Your task to perform on an android device: Is it going to rain this weekend? Image 0: 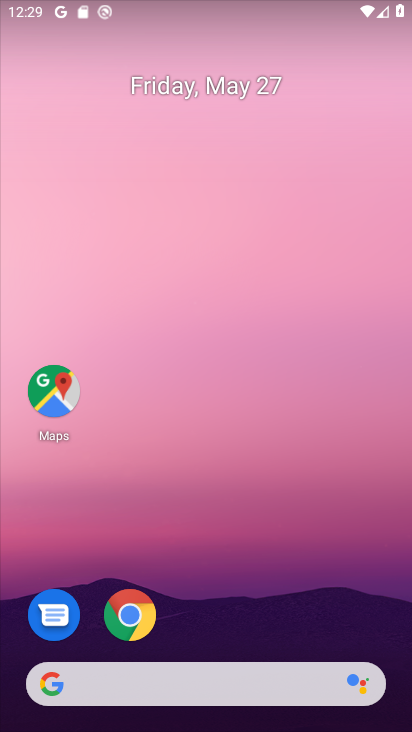
Step 0: drag from (6, 318) to (348, 286)
Your task to perform on an android device: Is it going to rain this weekend? Image 1: 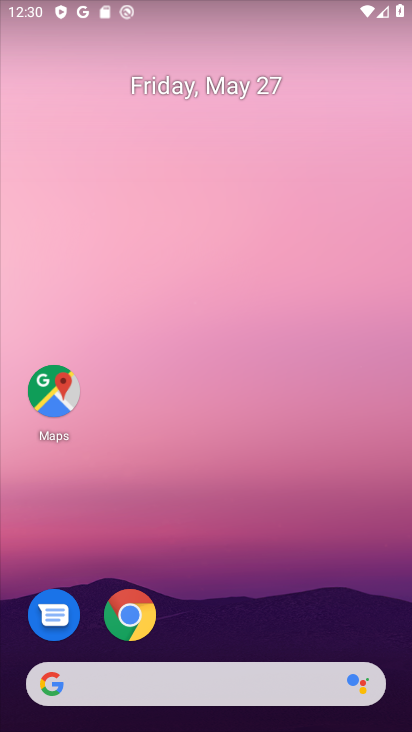
Step 1: drag from (0, 320) to (401, 260)
Your task to perform on an android device: Is it going to rain this weekend? Image 2: 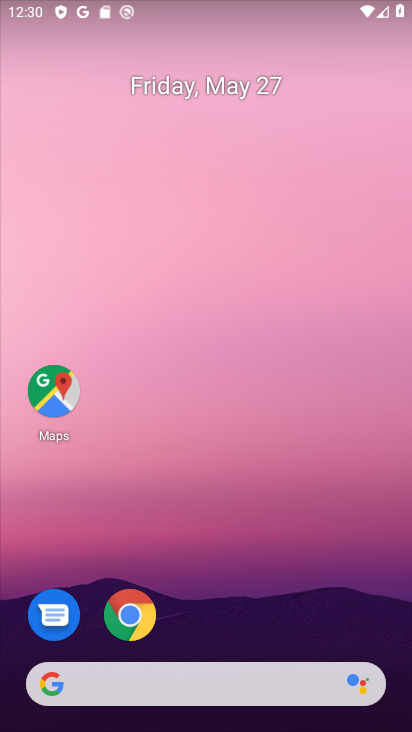
Step 2: drag from (0, 279) to (398, 160)
Your task to perform on an android device: Is it going to rain this weekend? Image 3: 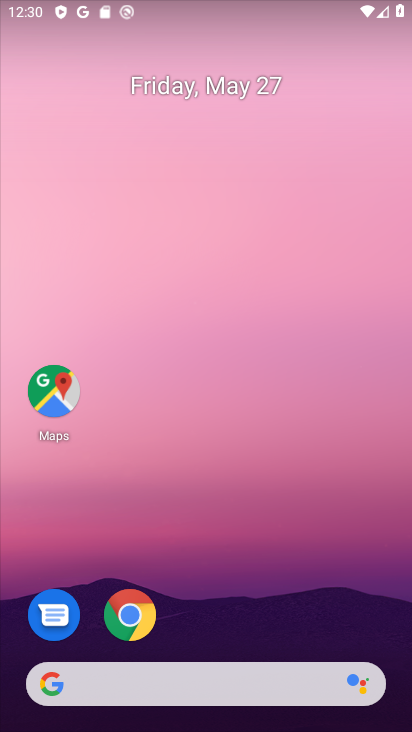
Step 3: drag from (0, 486) to (411, 429)
Your task to perform on an android device: Is it going to rain this weekend? Image 4: 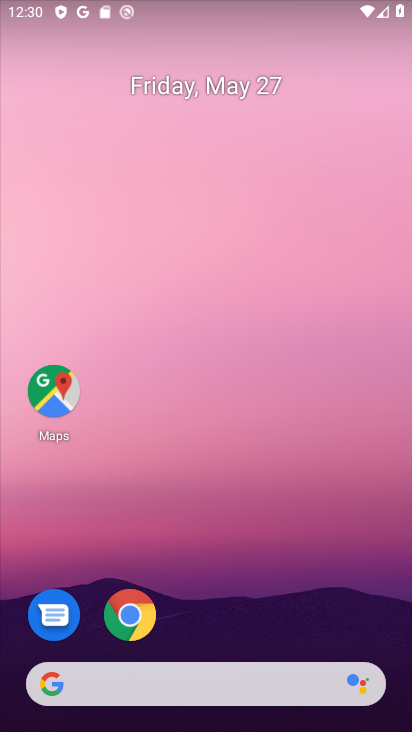
Step 4: drag from (92, 464) to (409, 436)
Your task to perform on an android device: Is it going to rain this weekend? Image 5: 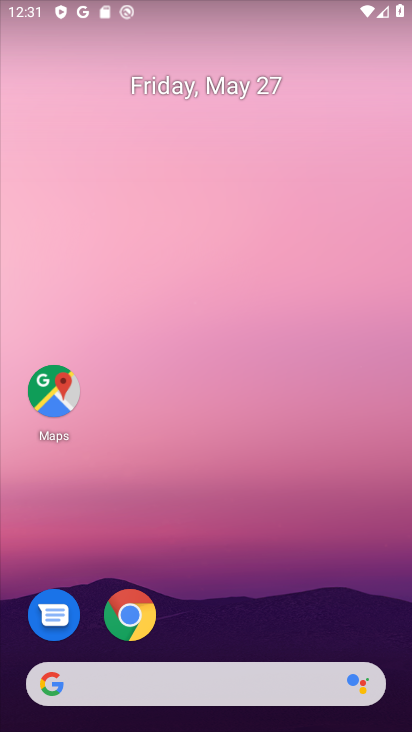
Step 5: click (161, 696)
Your task to perform on an android device: Is it going to rain this weekend? Image 6: 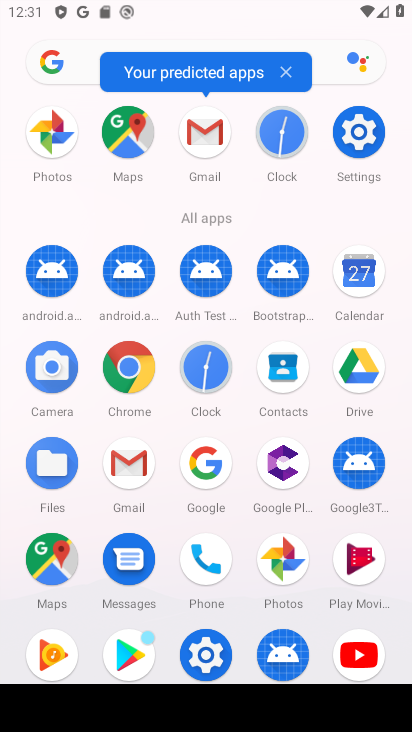
Step 6: press back button
Your task to perform on an android device: Is it going to rain this weekend? Image 7: 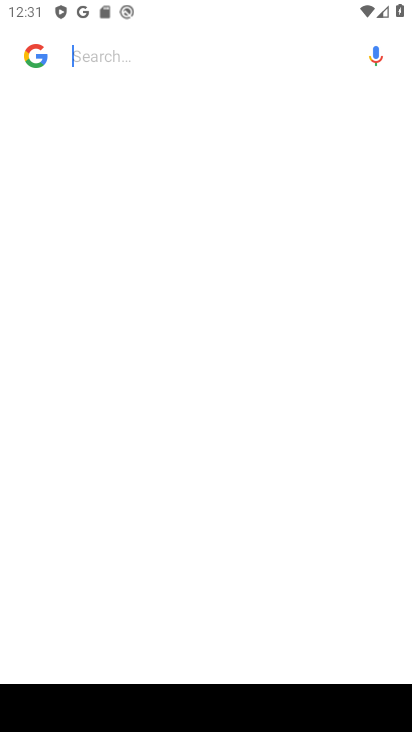
Step 7: press back button
Your task to perform on an android device: Is it going to rain this weekend? Image 8: 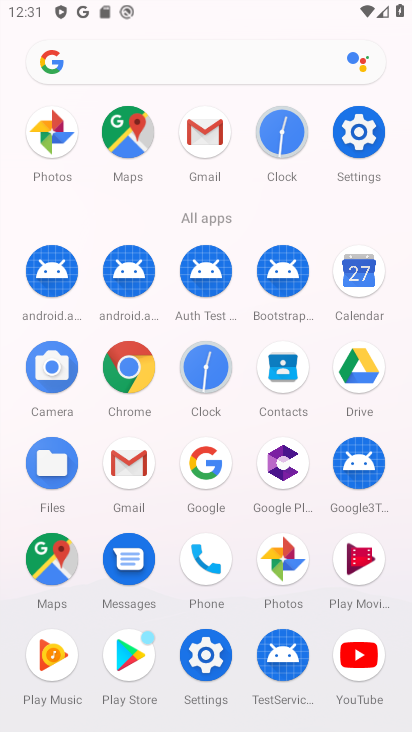
Step 8: click (213, 451)
Your task to perform on an android device: Is it going to rain this weekend? Image 9: 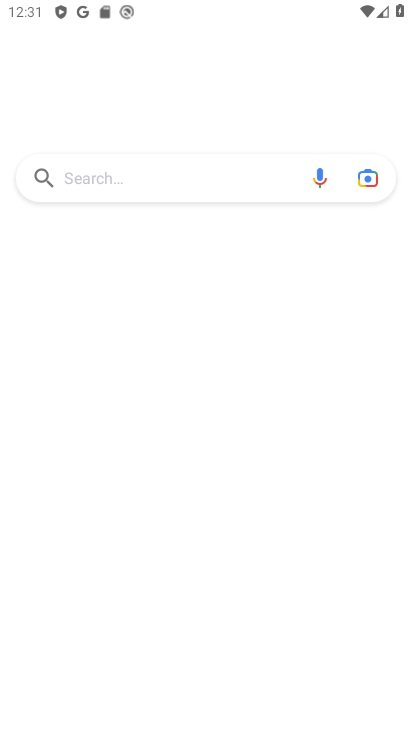
Step 9: click (206, 477)
Your task to perform on an android device: Is it going to rain this weekend? Image 10: 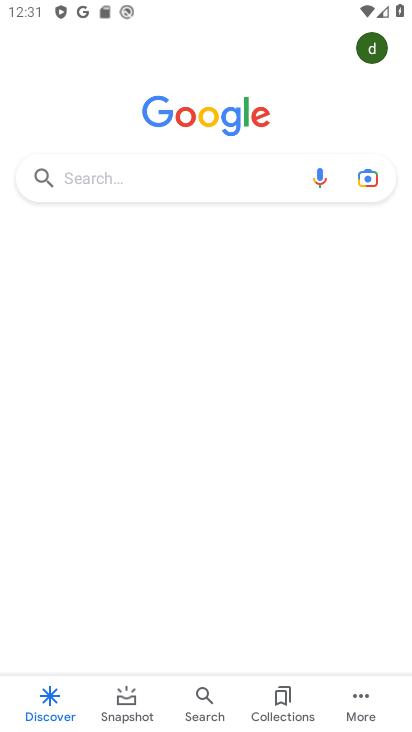
Step 10: click (165, 191)
Your task to perform on an android device: Is it going to rain this weekend? Image 11: 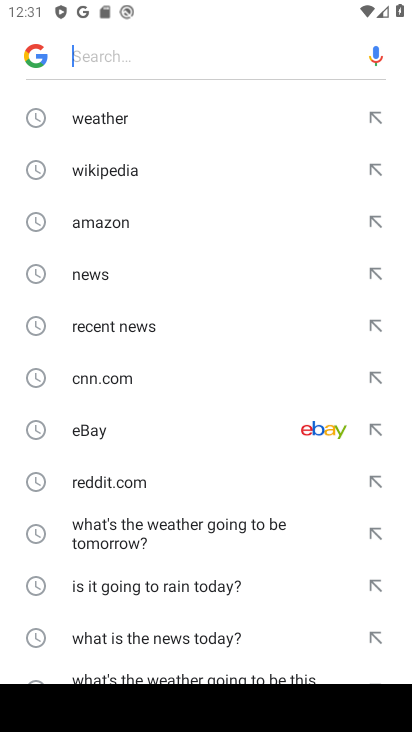
Step 11: click (197, 101)
Your task to perform on an android device: Is it going to rain this weekend? Image 12: 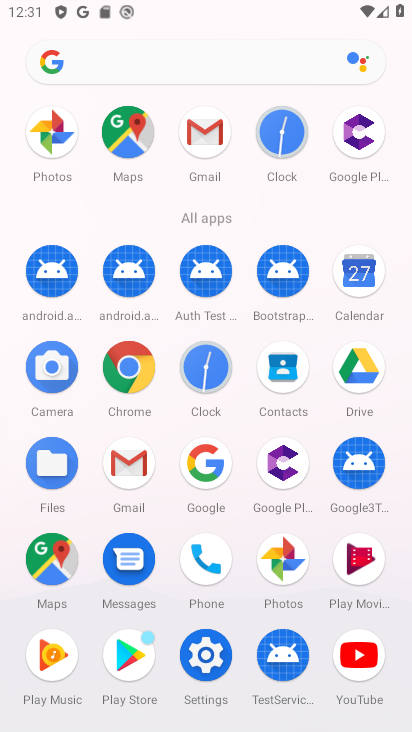
Step 12: click (209, 483)
Your task to perform on an android device: Is it going to rain this weekend? Image 13: 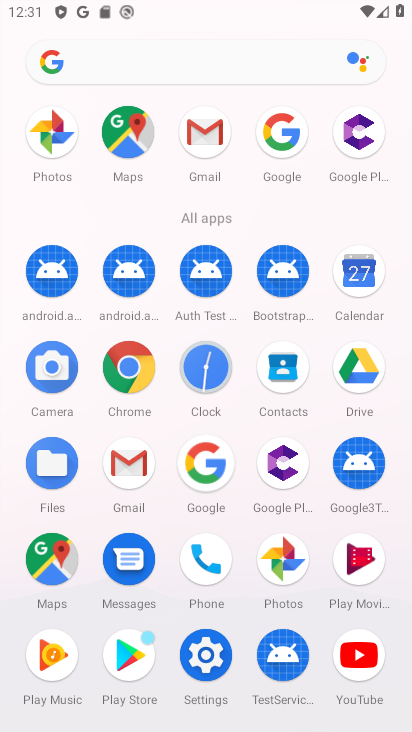
Step 13: click (213, 479)
Your task to perform on an android device: Is it going to rain this weekend? Image 14: 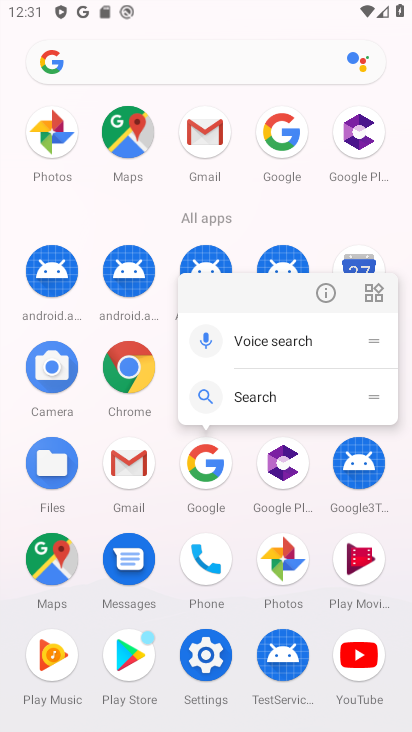
Step 14: click (207, 458)
Your task to perform on an android device: Is it going to rain this weekend? Image 15: 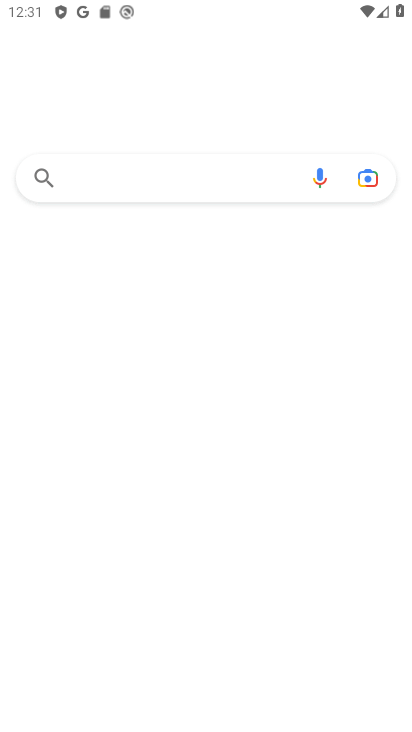
Step 15: click (207, 465)
Your task to perform on an android device: Is it going to rain this weekend? Image 16: 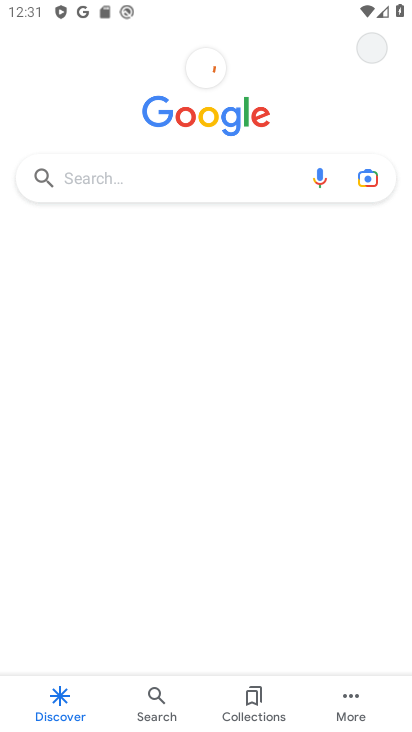
Step 16: click (162, 176)
Your task to perform on an android device: Is it going to rain this weekend? Image 17: 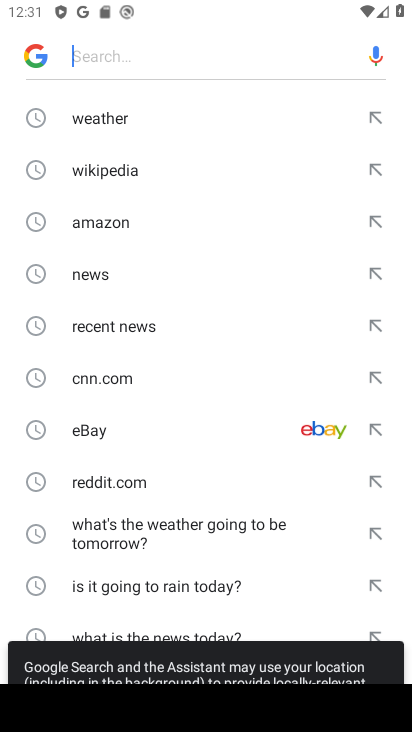
Step 17: click (148, 118)
Your task to perform on an android device: Is it going to rain this weekend? Image 18: 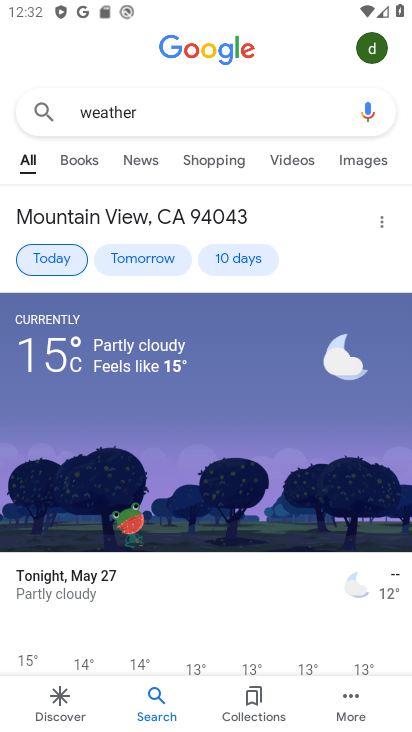
Step 18: click (231, 256)
Your task to perform on an android device: Is it going to rain this weekend? Image 19: 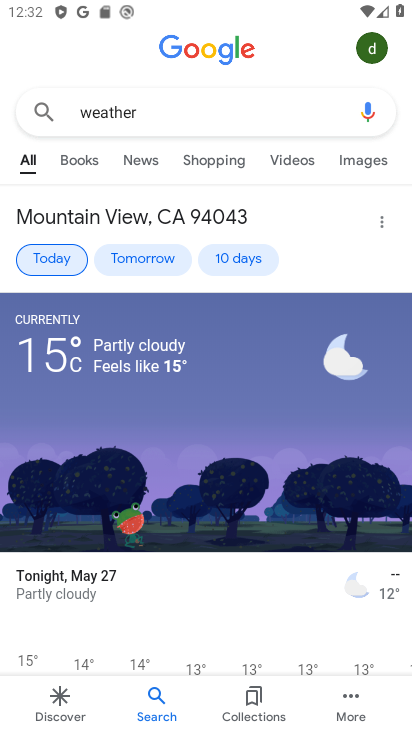
Step 19: click (308, 392)
Your task to perform on an android device: Is it going to rain this weekend? Image 20: 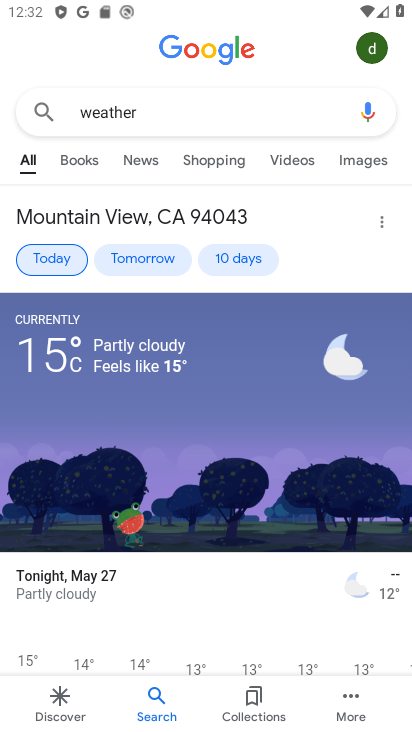
Step 20: click (250, 495)
Your task to perform on an android device: Is it going to rain this weekend? Image 21: 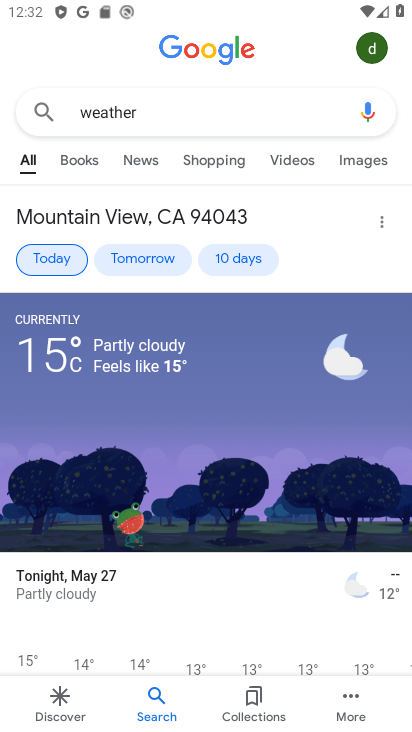
Step 21: click (232, 582)
Your task to perform on an android device: Is it going to rain this weekend? Image 22: 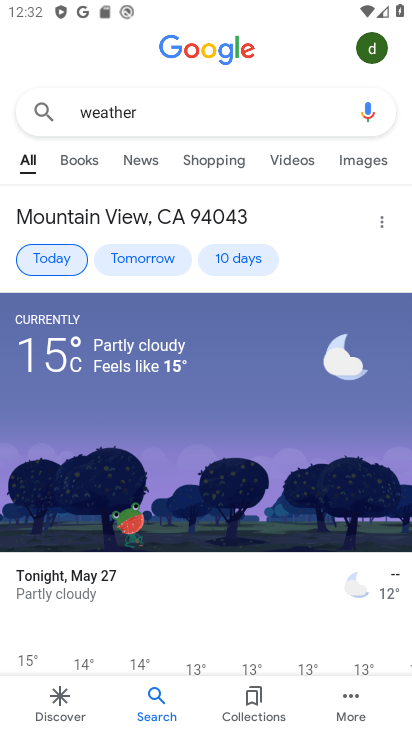
Step 22: click (216, 532)
Your task to perform on an android device: Is it going to rain this weekend? Image 23: 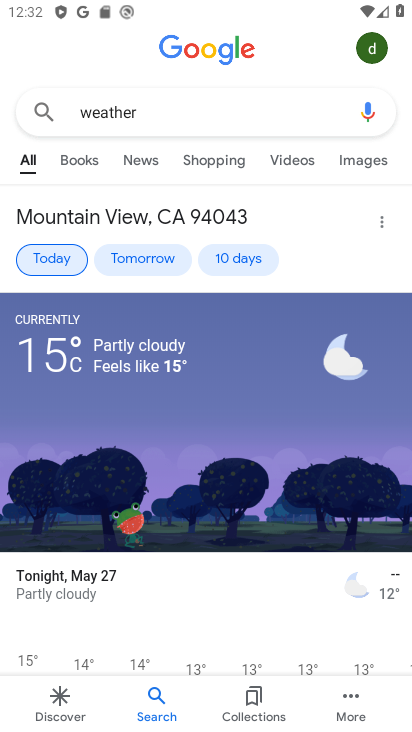
Step 23: drag from (134, 592) to (279, 78)
Your task to perform on an android device: Is it going to rain this weekend? Image 24: 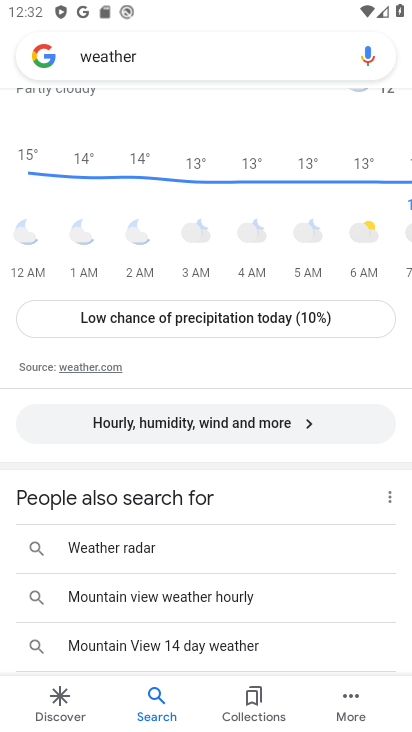
Step 24: click (220, 311)
Your task to perform on an android device: Is it going to rain this weekend? Image 25: 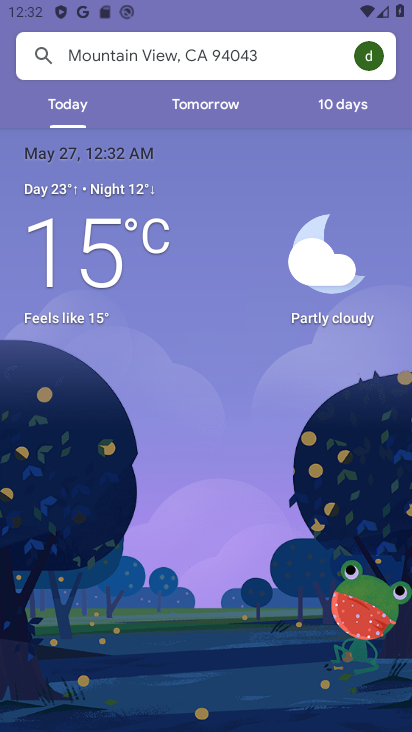
Step 25: click (323, 103)
Your task to perform on an android device: Is it going to rain this weekend? Image 26: 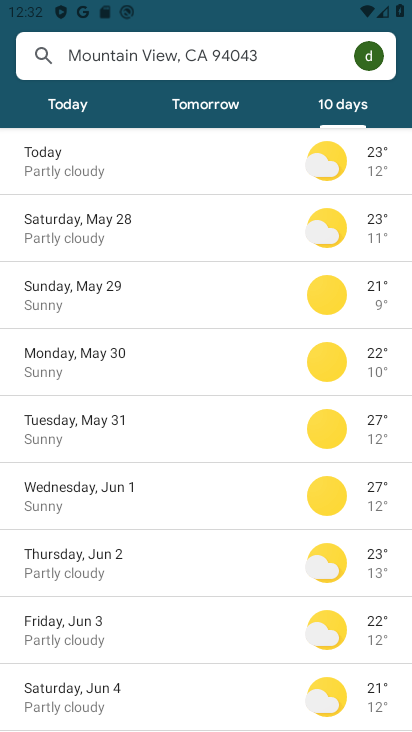
Step 26: task complete